Your task to perform on an android device: Play the last video I watched on Youtube Image 0: 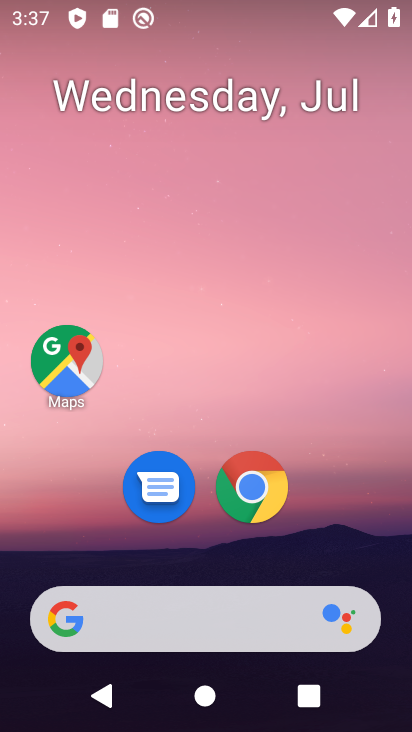
Step 0: drag from (262, 549) to (269, 173)
Your task to perform on an android device: Play the last video I watched on Youtube Image 1: 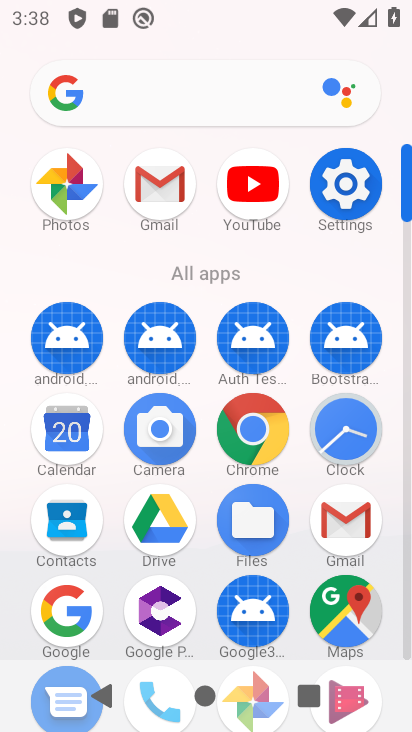
Step 1: click (265, 195)
Your task to perform on an android device: Play the last video I watched on Youtube Image 2: 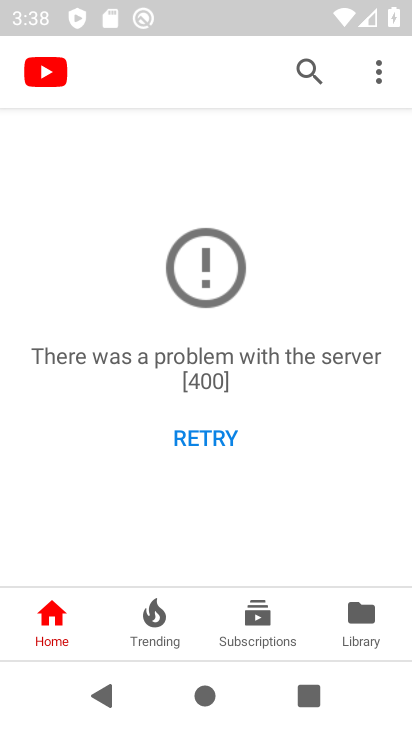
Step 2: click (359, 641)
Your task to perform on an android device: Play the last video I watched on Youtube Image 3: 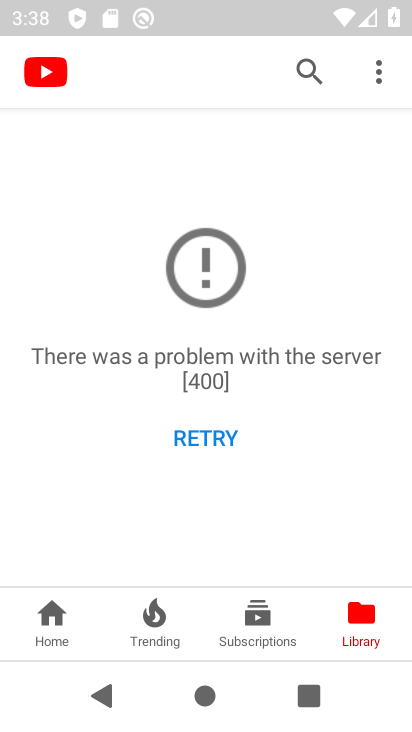
Step 3: task complete